Your task to perform on an android device: stop showing notifications on the lock screen Image 0: 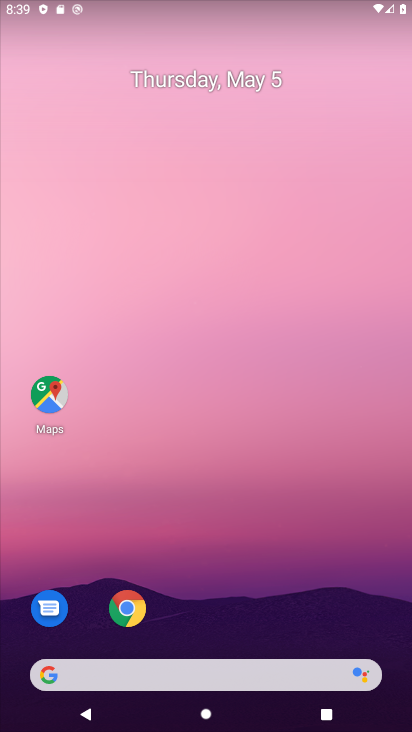
Step 0: drag from (318, 652) to (314, 33)
Your task to perform on an android device: stop showing notifications on the lock screen Image 1: 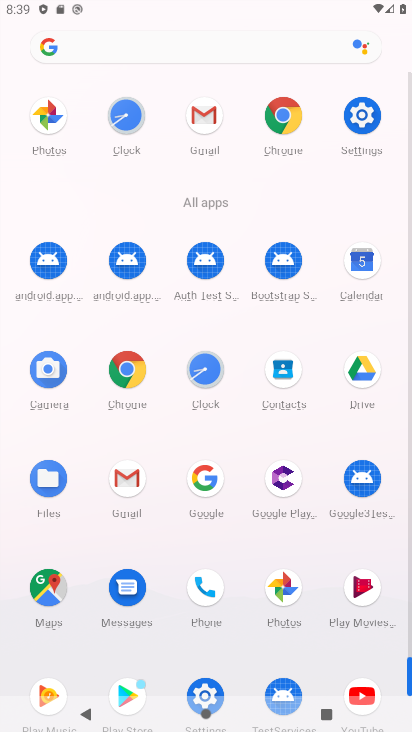
Step 1: drag from (238, 672) to (233, 272)
Your task to perform on an android device: stop showing notifications on the lock screen Image 2: 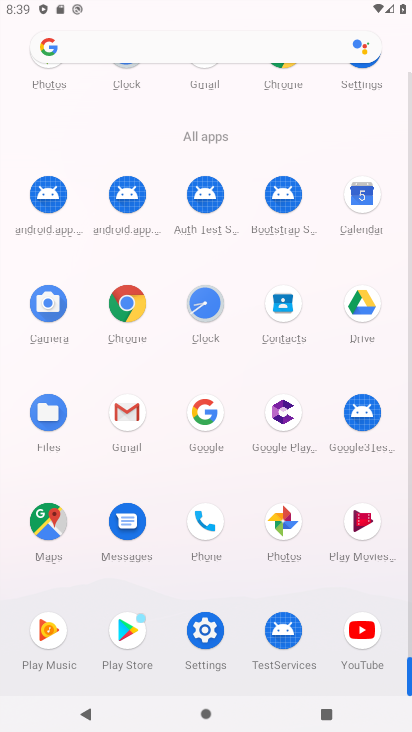
Step 2: click (206, 639)
Your task to perform on an android device: stop showing notifications on the lock screen Image 3: 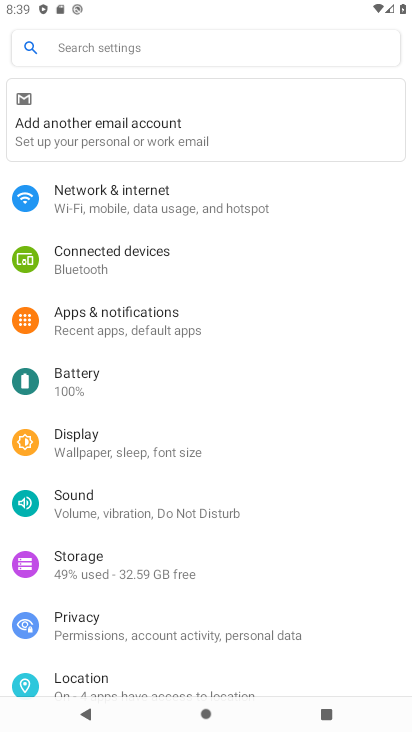
Step 3: click (175, 317)
Your task to perform on an android device: stop showing notifications on the lock screen Image 4: 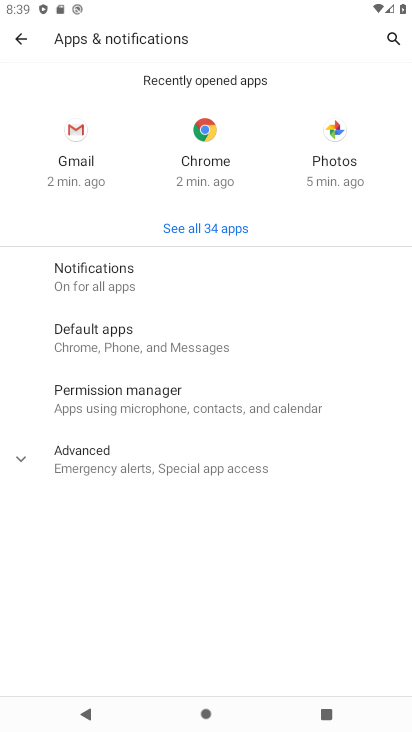
Step 4: click (164, 282)
Your task to perform on an android device: stop showing notifications on the lock screen Image 5: 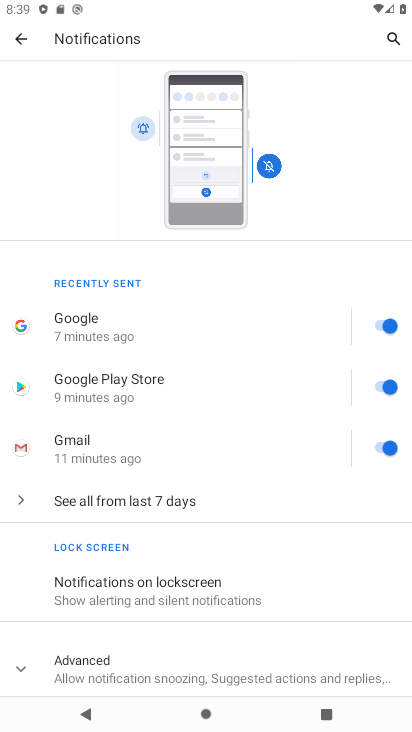
Step 5: click (176, 599)
Your task to perform on an android device: stop showing notifications on the lock screen Image 6: 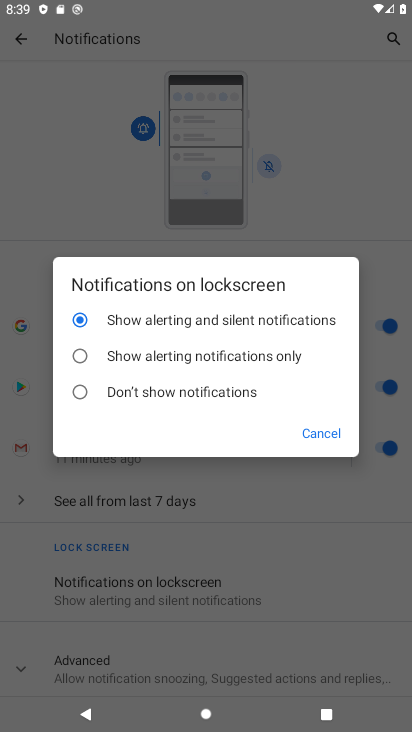
Step 6: click (187, 393)
Your task to perform on an android device: stop showing notifications on the lock screen Image 7: 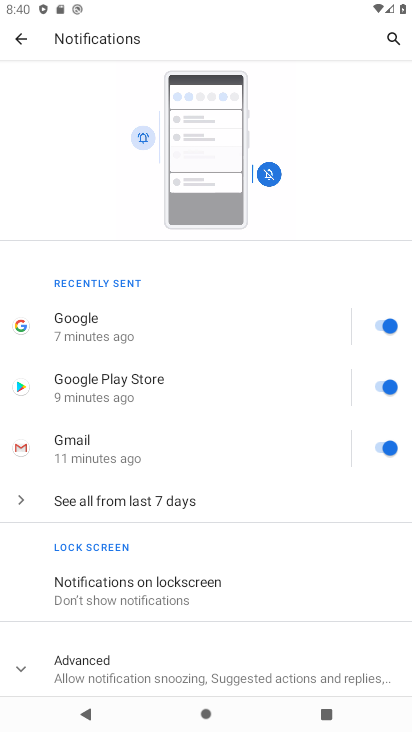
Step 7: task complete